Your task to perform on an android device: Add "energizer triple a" to the cart on costco.com Image 0: 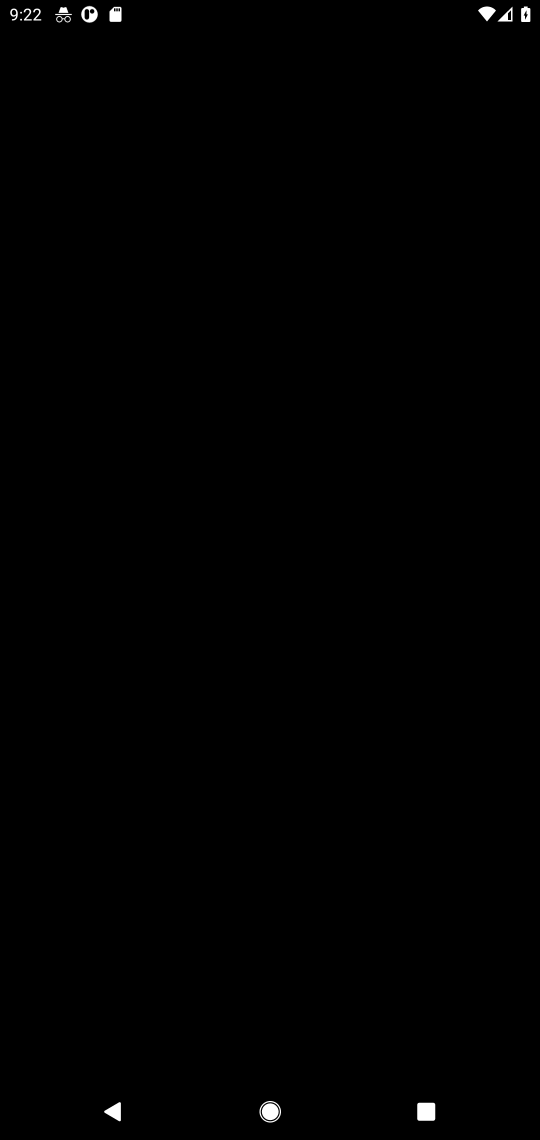
Step 0: press home button
Your task to perform on an android device: Add "energizer triple a" to the cart on costco.com Image 1: 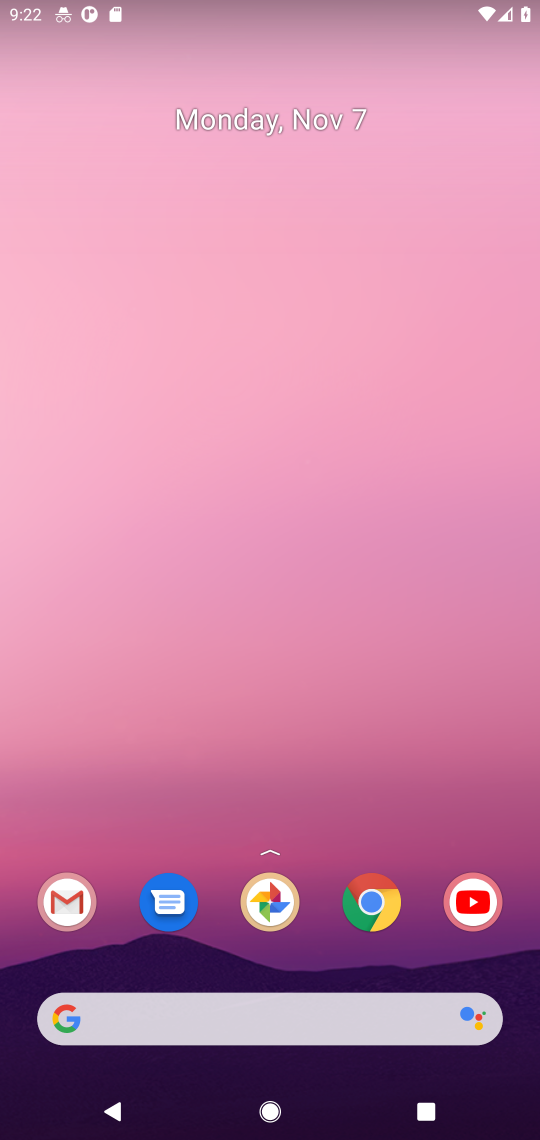
Step 1: click (381, 905)
Your task to perform on an android device: Add "energizer triple a" to the cart on costco.com Image 2: 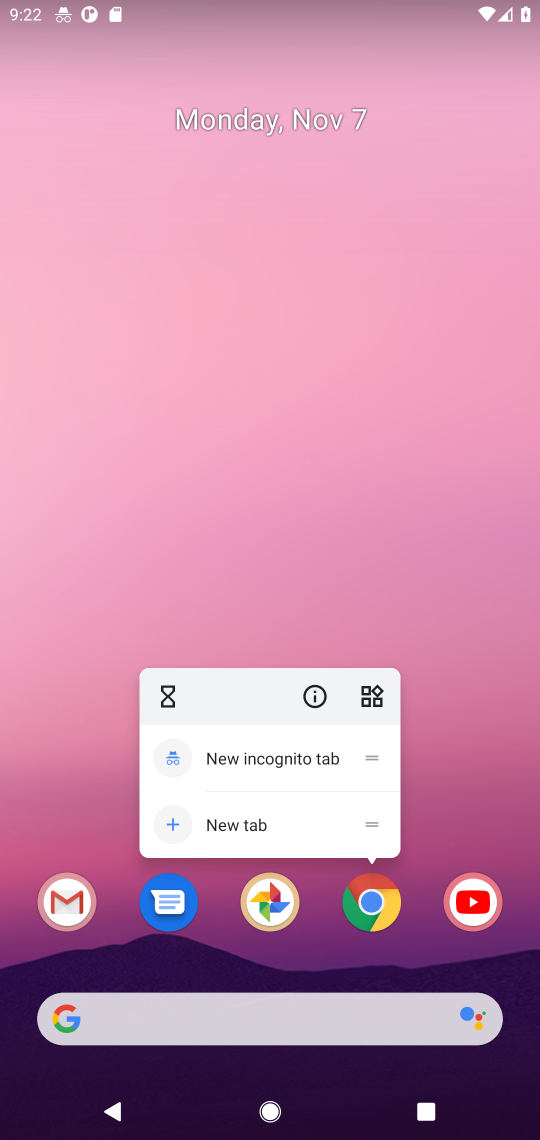
Step 2: click (381, 905)
Your task to perform on an android device: Add "energizer triple a" to the cart on costco.com Image 3: 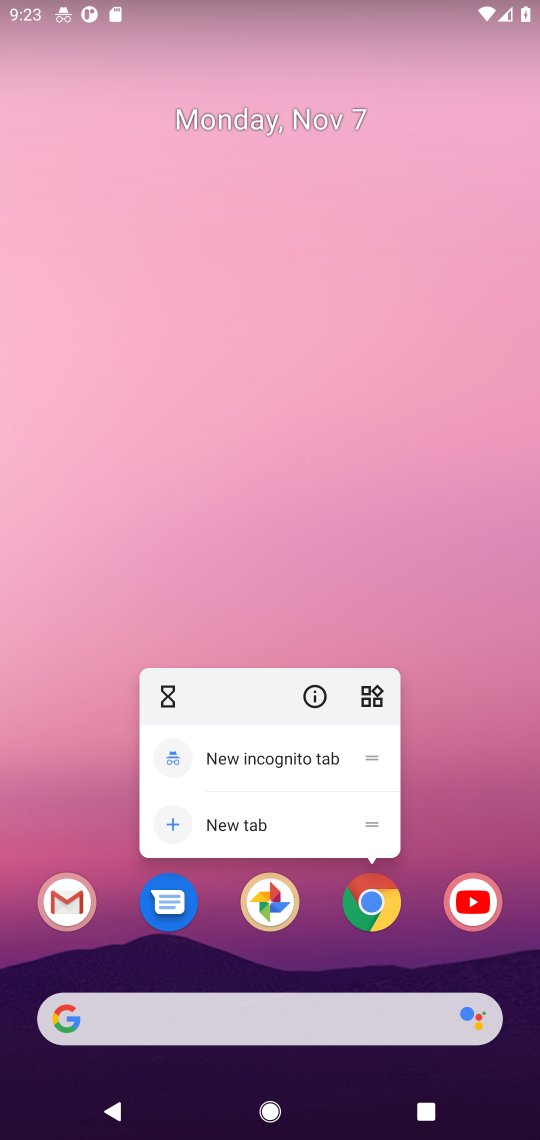
Step 3: click (378, 903)
Your task to perform on an android device: Add "energizer triple a" to the cart on costco.com Image 4: 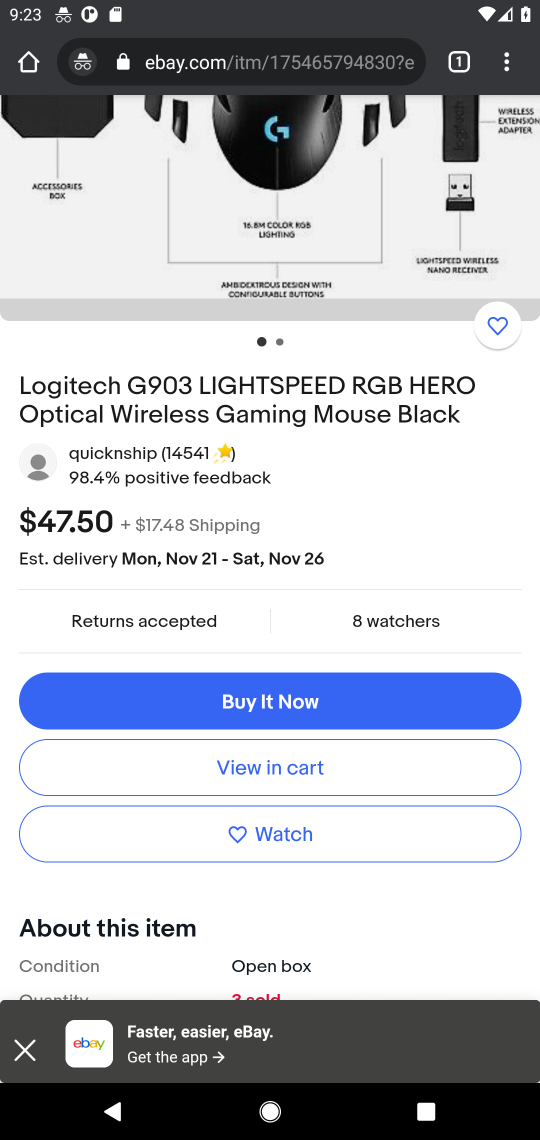
Step 4: click (273, 68)
Your task to perform on an android device: Add "energizer triple a" to the cart on costco.com Image 5: 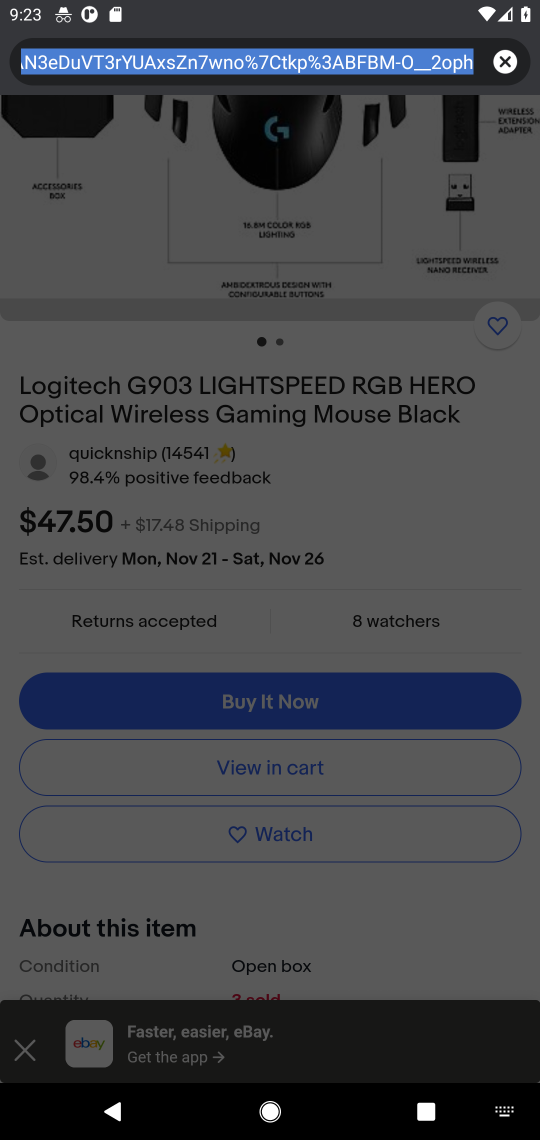
Step 5: type "costco.com"
Your task to perform on an android device: Add "energizer triple a" to the cart on costco.com Image 6: 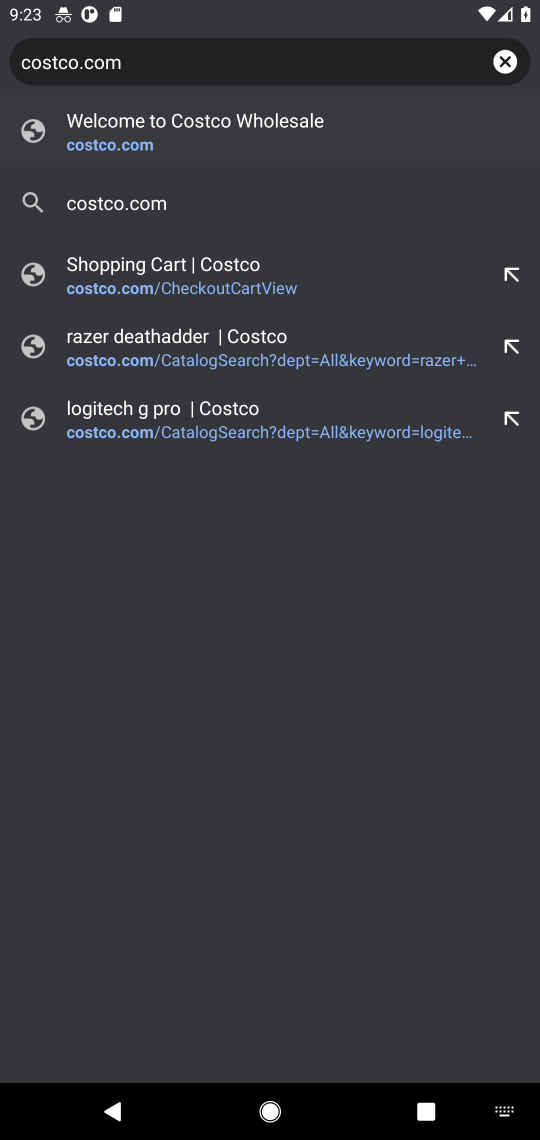
Step 6: click (123, 165)
Your task to perform on an android device: Add "energizer triple a" to the cart on costco.com Image 7: 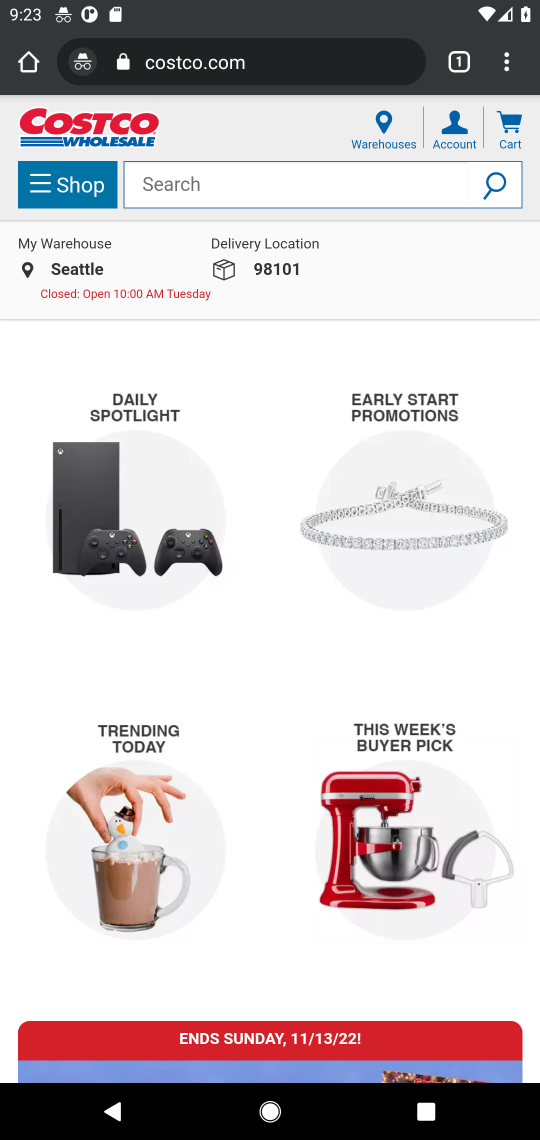
Step 7: click (228, 184)
Your task to perform on an android device: Add "energizer triple a" to the cart on costco.com Image 8: 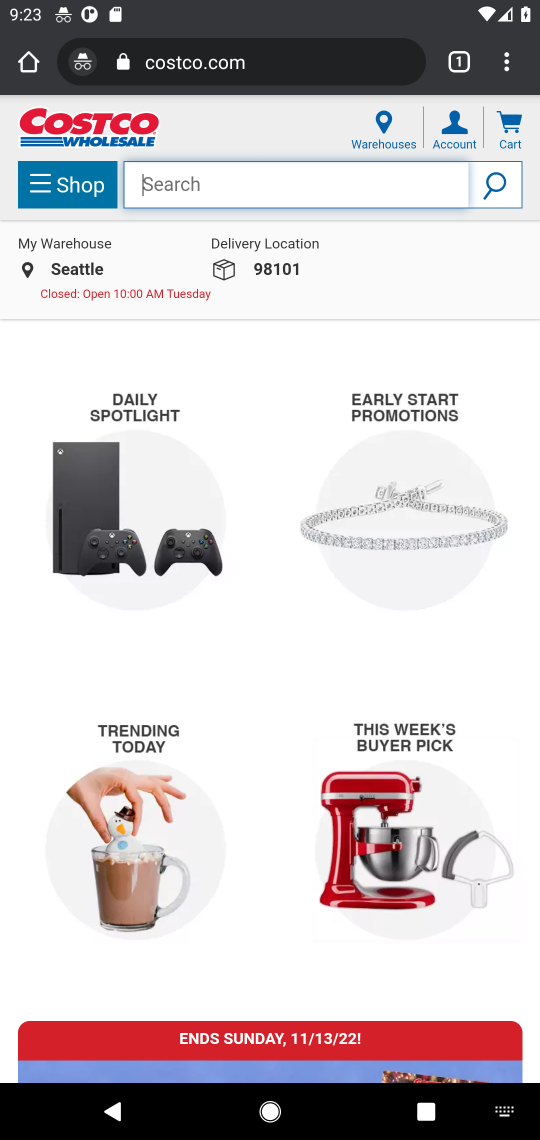
Step 8: type "energizer triple a"
Your task to perform on an android device: Add "energizer triple a" to the cart on costco.com Image 9: 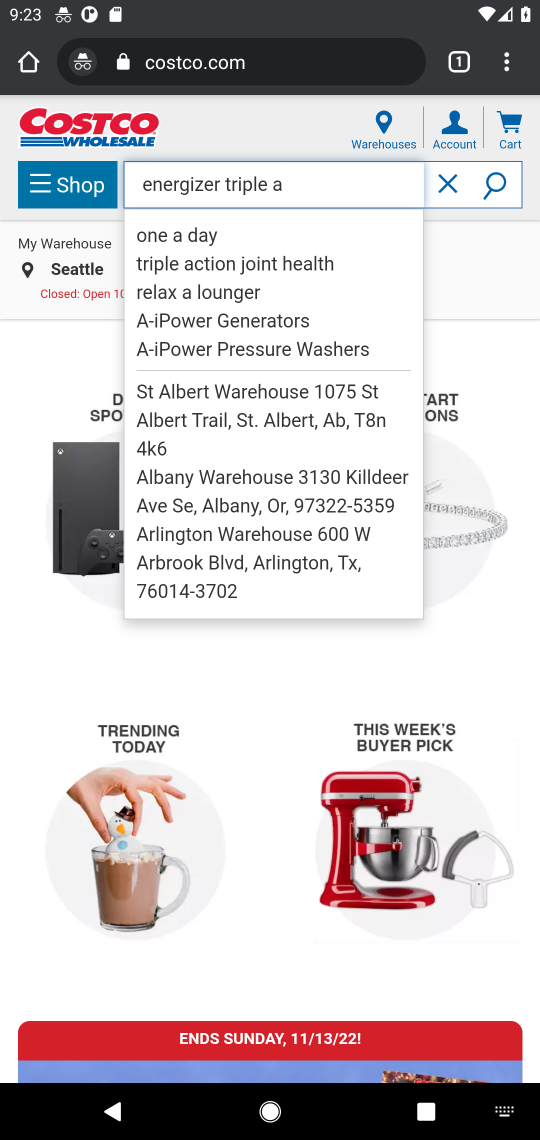
Step 9: click (500, 173)
Your task to perform on an android device: Add "energizer triple a" to the cart on costco.com Image 10: 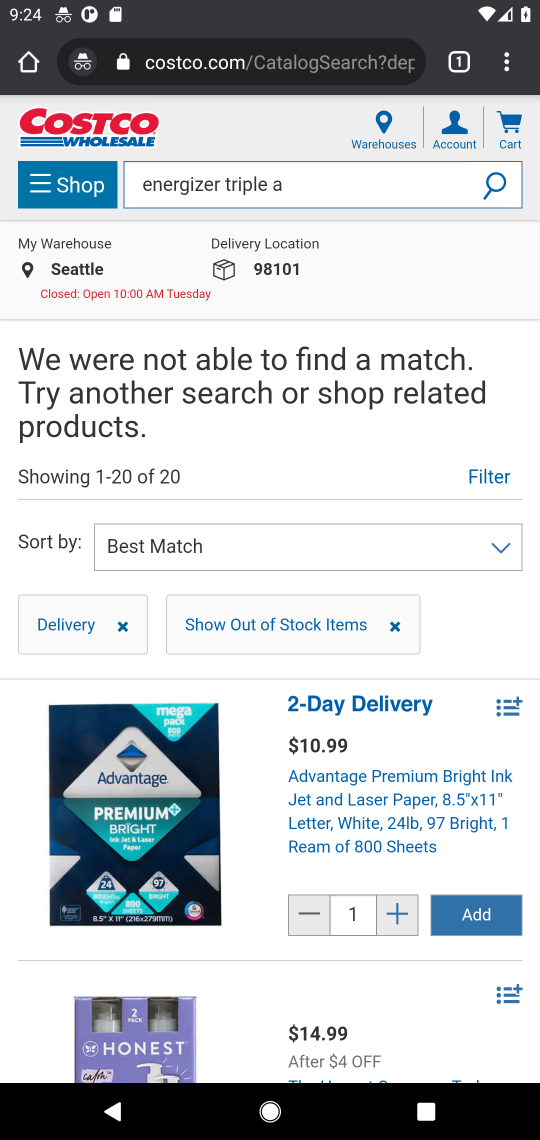
Step 10: task complete